Your task to perform on an android device: delete browsing data in the chrome app Image 0: 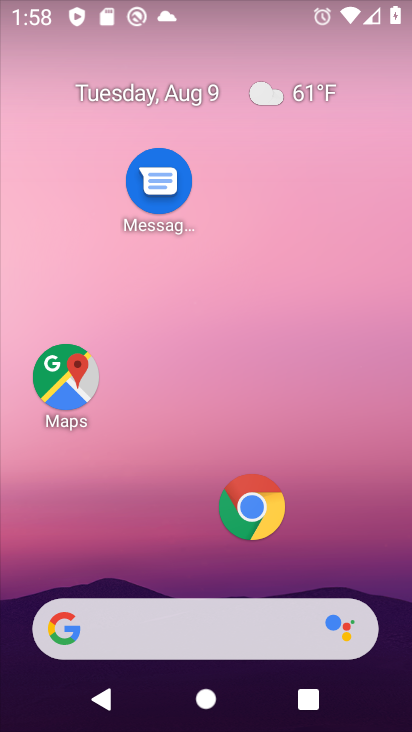
Step 0: click (261, 516)
Your task to perform on an android device: delete browsing data in the chrome app Image 1: 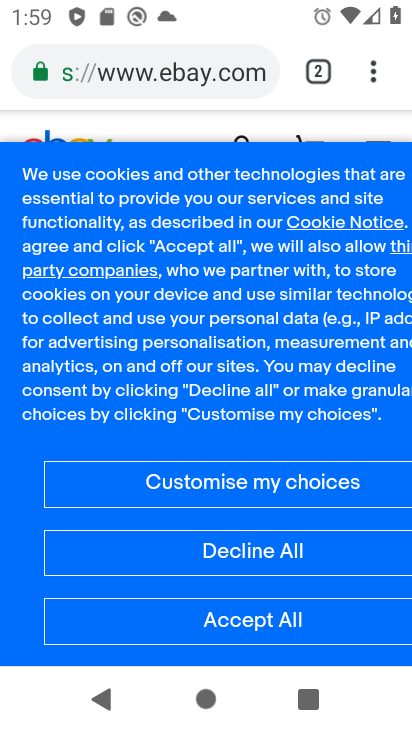
Step 1: drag from (370, 63) to (104, 402)
Your task to perform on an android device: delete browsing data in the chrome app Image 2: 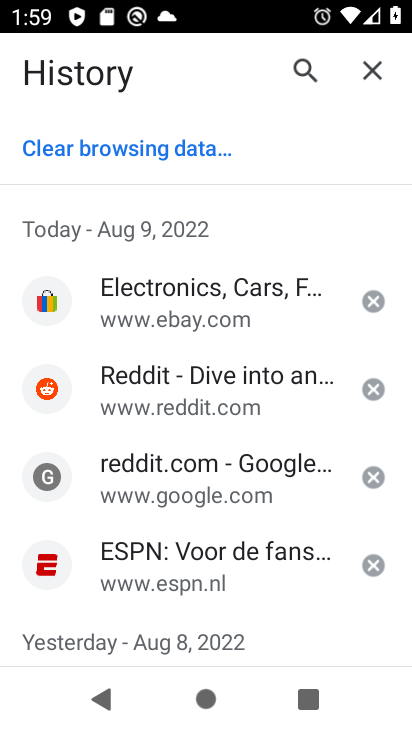
Step 2: click (195, 152)
Your task to perform on an android device: delete browsing data in the chrome app Image 3: 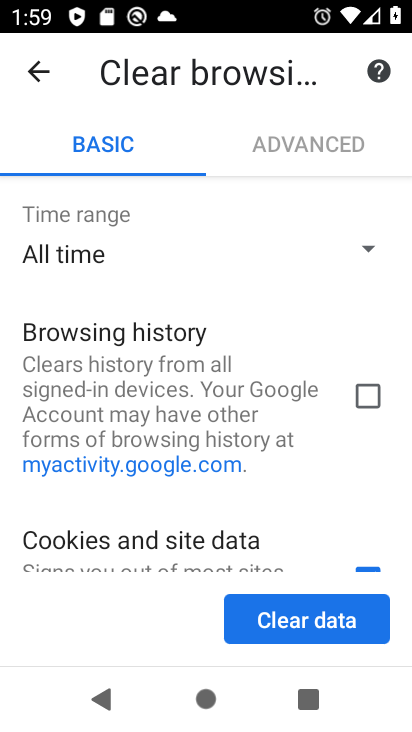
Step 3: click (351, 384)
Your task to perform on an android device: delete browsing data in the chrome app Image 4: 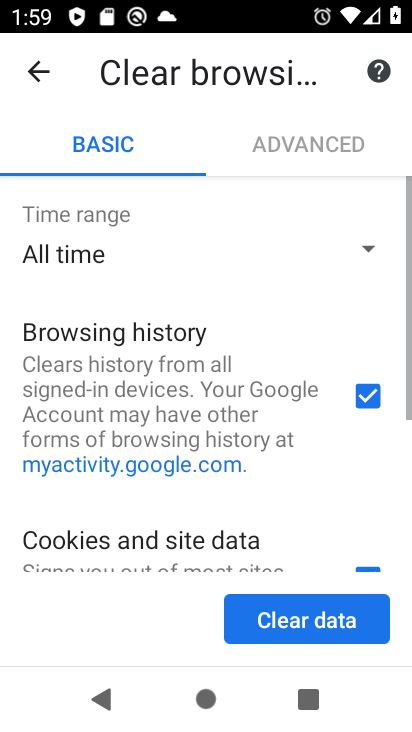
Step 4: drag from (218, 484) to (284, 255)
Your task to perform on an android device: delete browsing data in the chrome app Image 5: 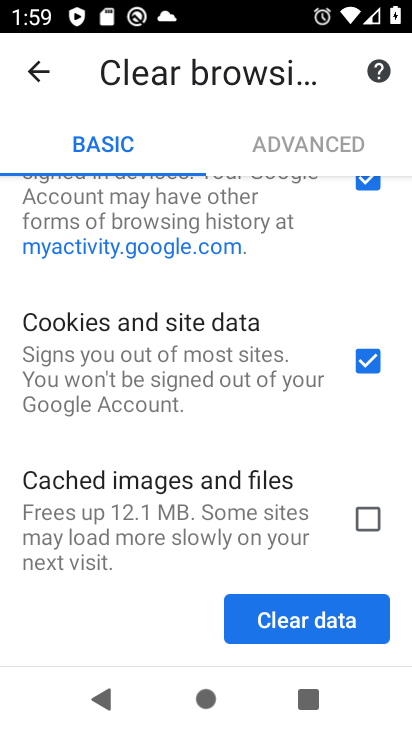
Step 5: click (364, 514)
Your task to perform on an android device: delete browsing data in the chrome app Image 6: 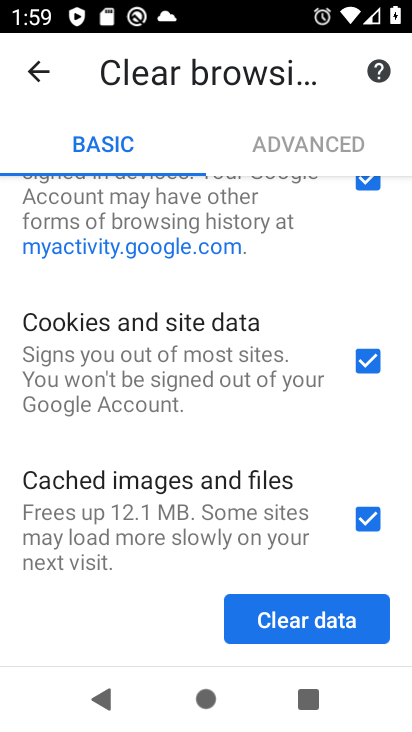
Step 6: click (314, 627)
Your task to perform on an android device: delete browsing data in the chrome app Image 7: 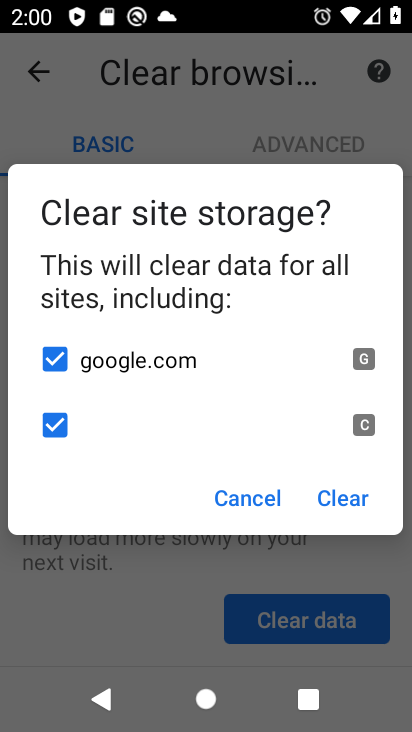
Step 7: click (336, 496)
Your task to perform on an android device: delete browsing data in the chrome app Image 8: 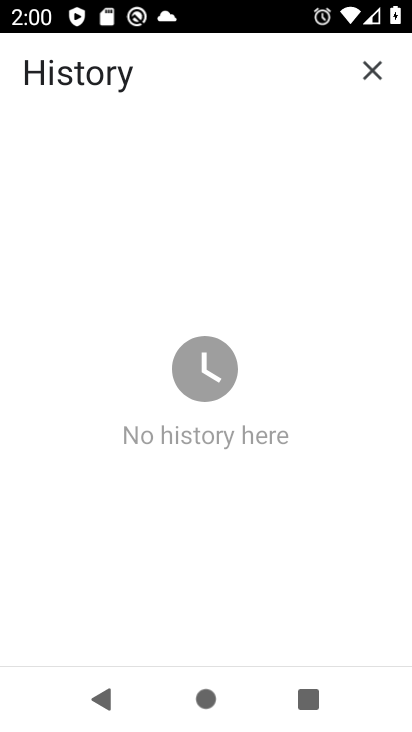
Step 8: task complete